Your task to perform on an android device: Is it going to rain today? Image 0: 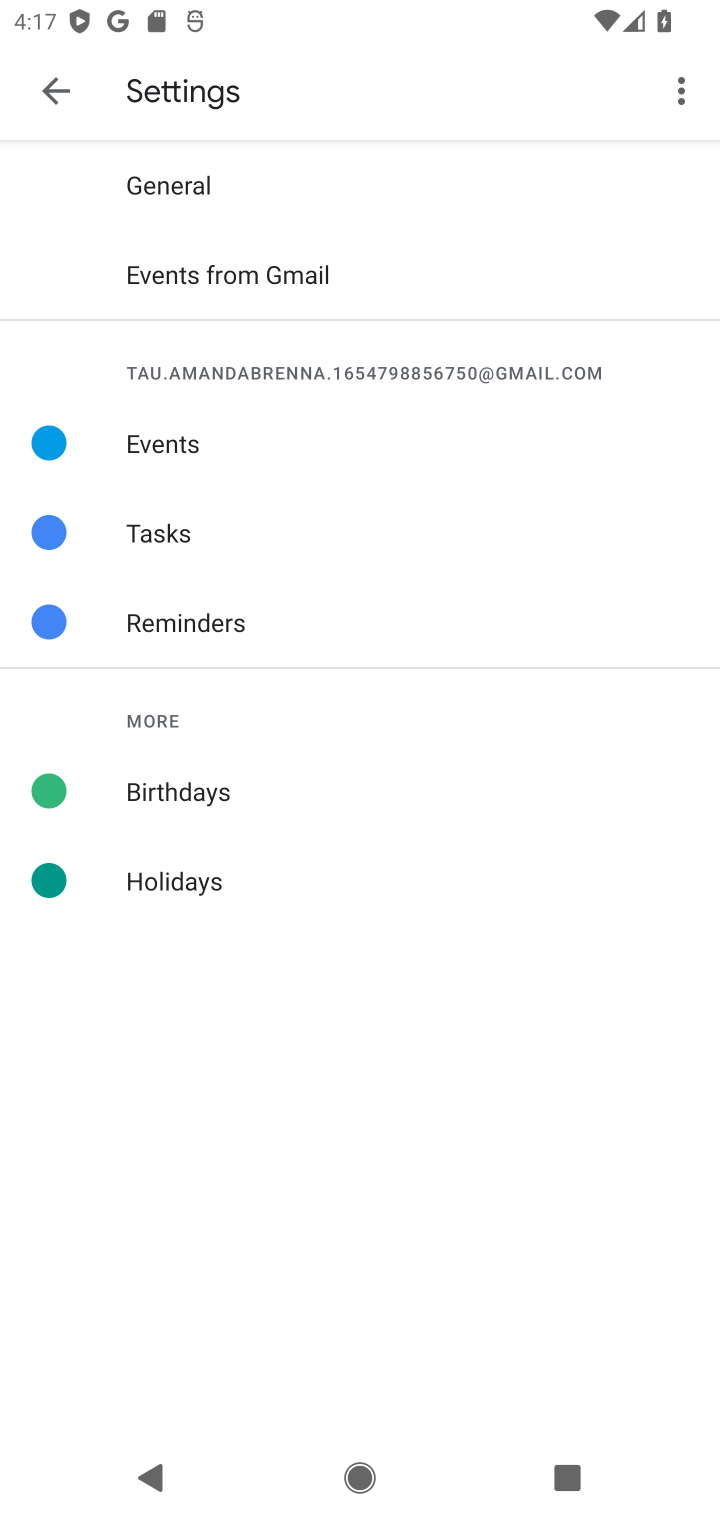
Step 0: press home button
Your task to perform on an android device: Is it going to rain today? Image 1: 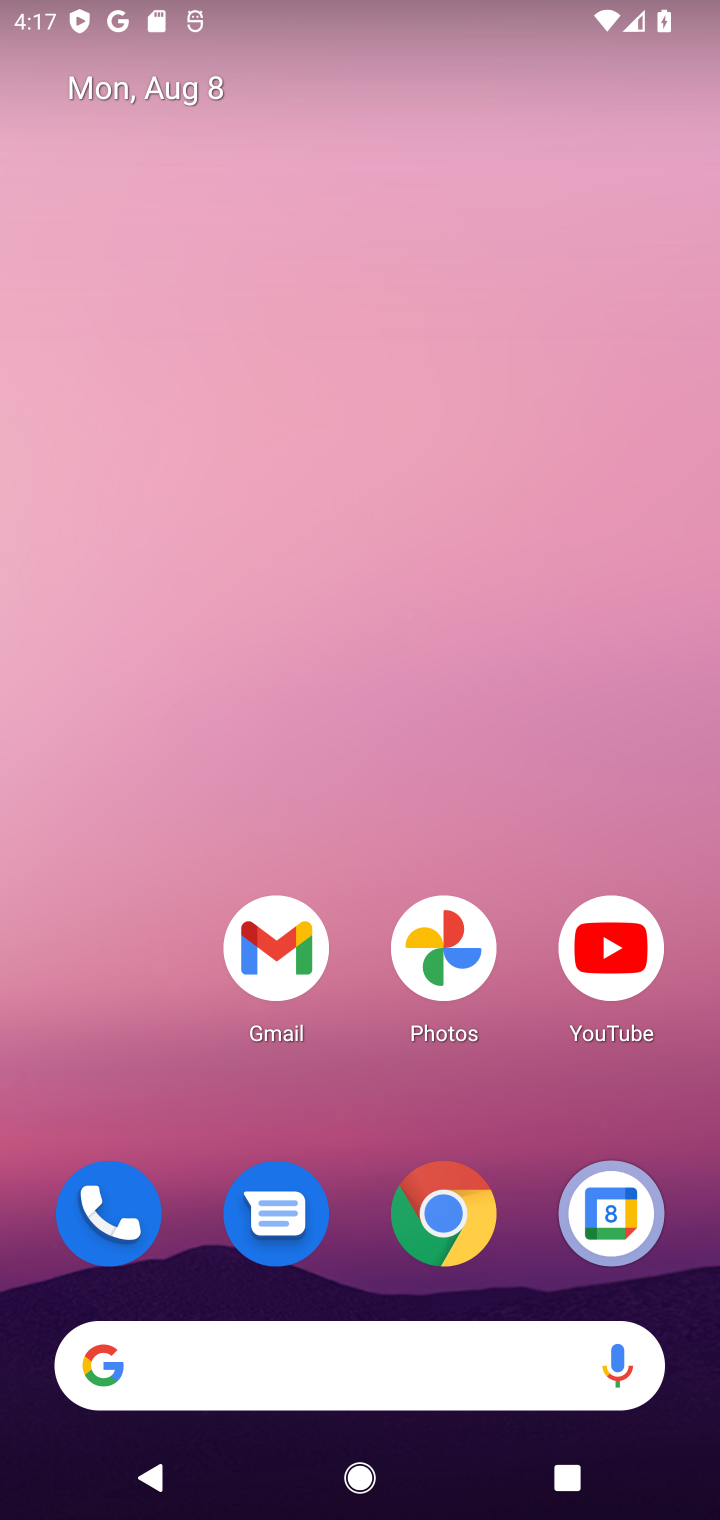
Step 1: click (306, 1368)
Your task to perform on an android device: Is it going to rain today? Image 2: 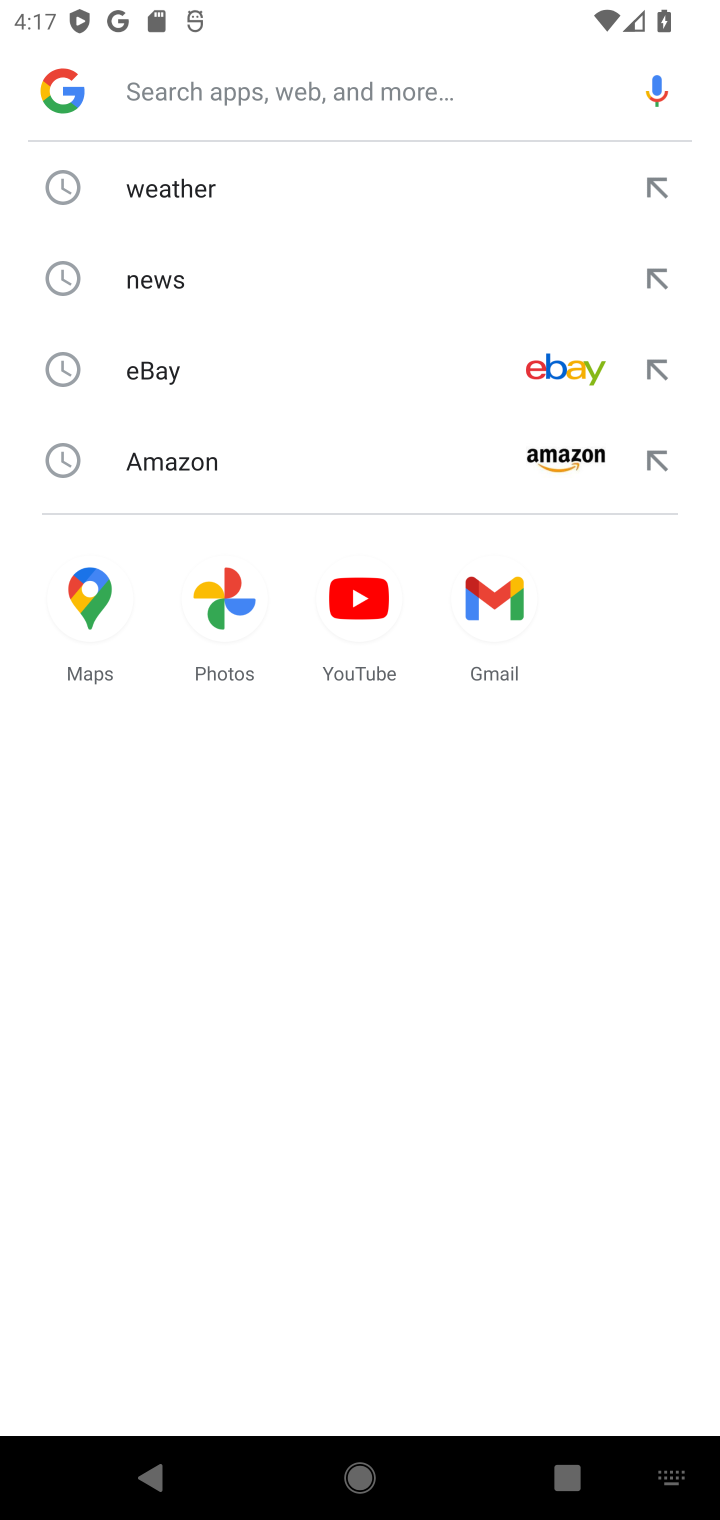
Step 2: type "is it going to rain today"
Your task to perform on an android device: Is it going to rain today? Image 3: 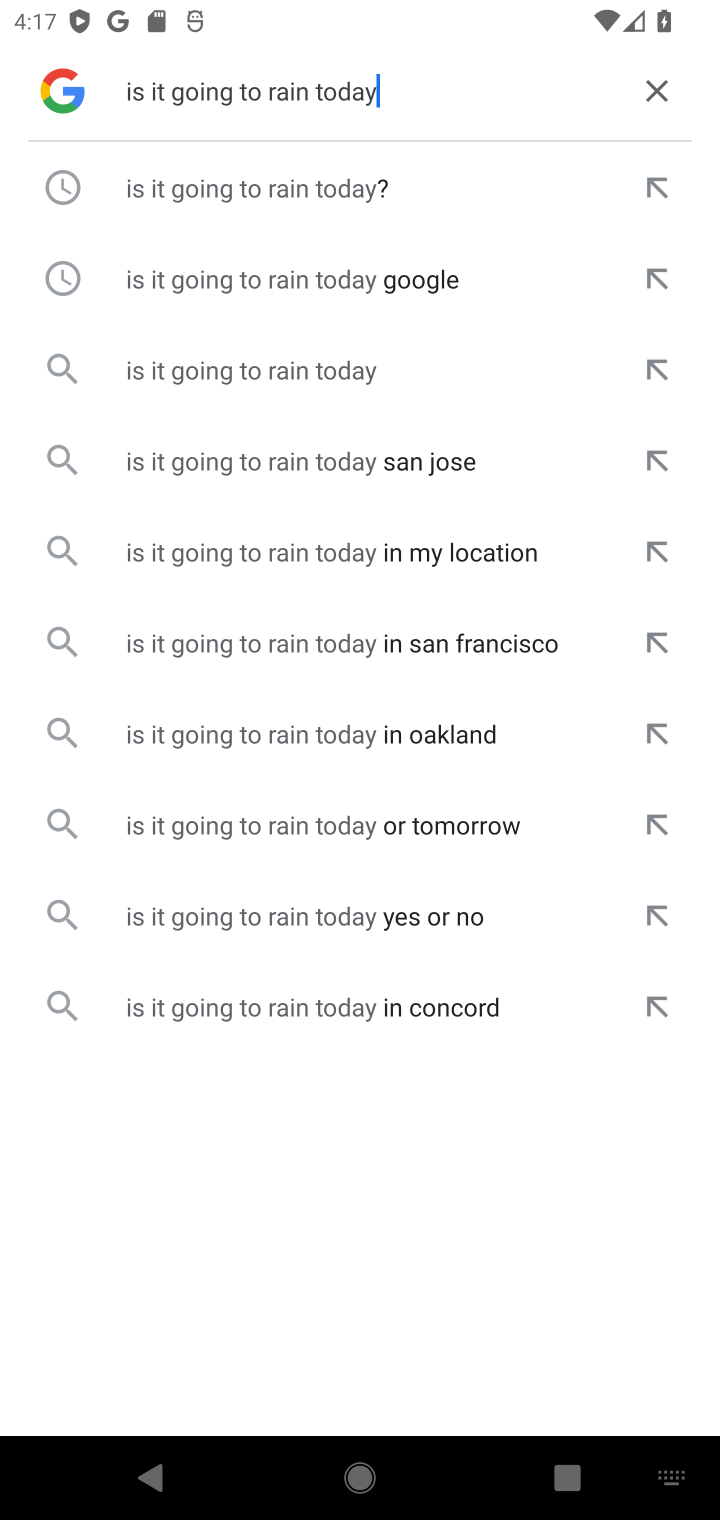
Step 3: click (313, 207)
Your task to perform on an android device: Is it going to rain today? Image 4: 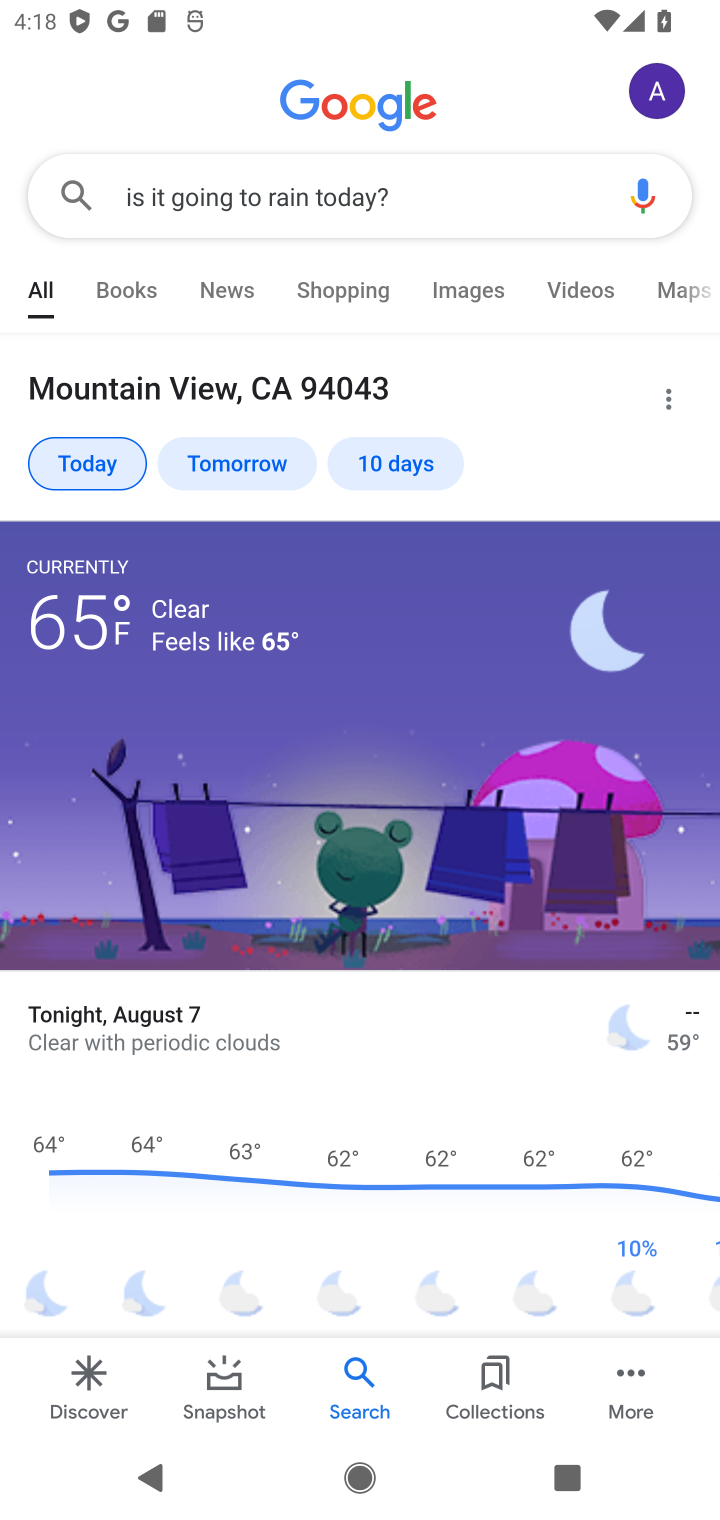
Step 4: task complete